Your task to perform on an android device: Open battery settings Image 0: 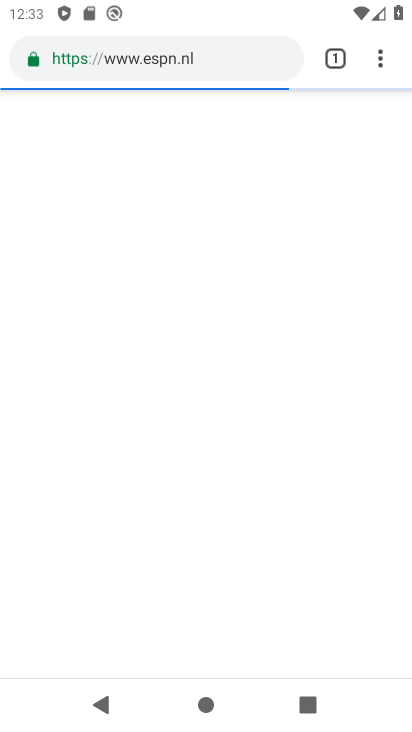
Step 0: press home button
Your task to perform on an android device: Open battery settings Image 1: 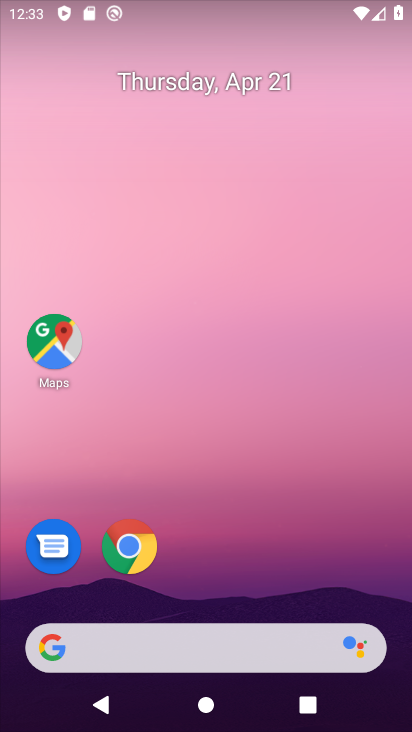
Step 1: drag from (233, 550) to (215, 193)
Your task to perform on an android device: Open battery settings Image 2: 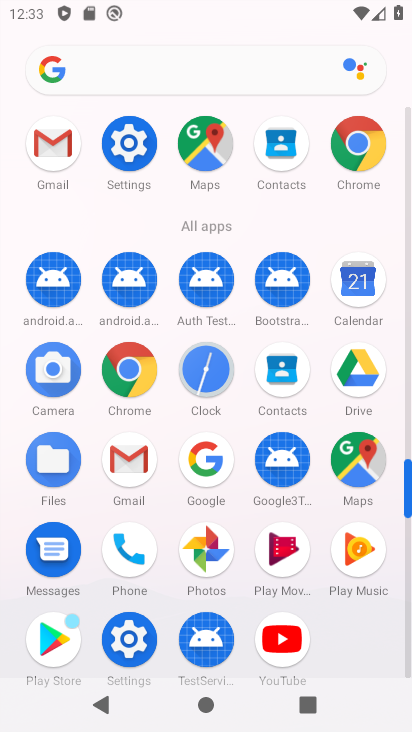
Step 2: click (144, 168)
Your task to perform on an android device: Open battery settings Image 3: 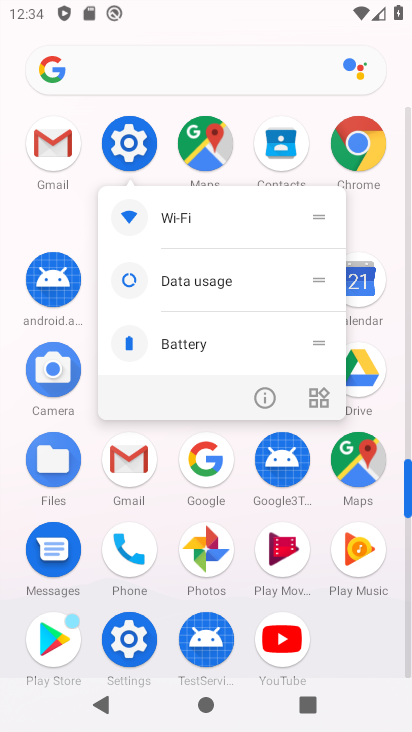
Step 3: click (122, 138)
Your task to perform on an android device: Open battery settings Image 4: 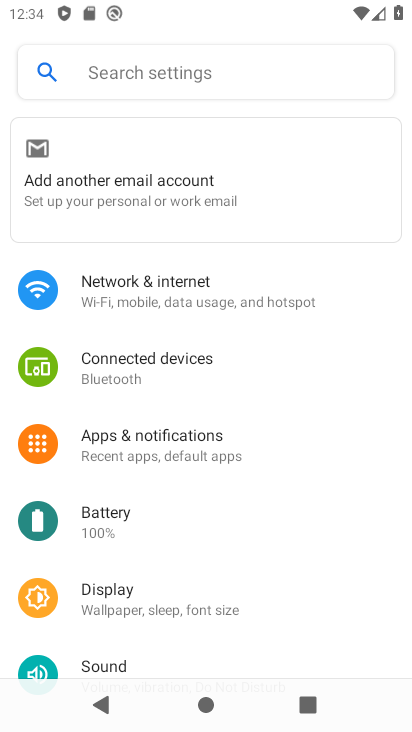
Step 4: click (158, 541)
Your task to perform on an android device: Open battery settings Image 5: 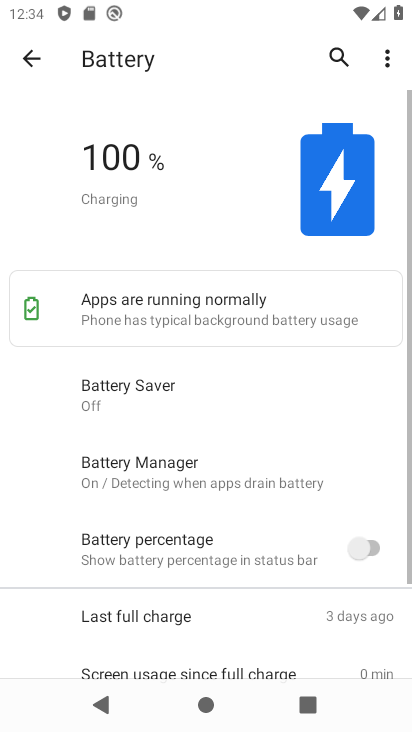
Step 5: task complete